Your task to perform on an android device: Go to sound settings Image 0: 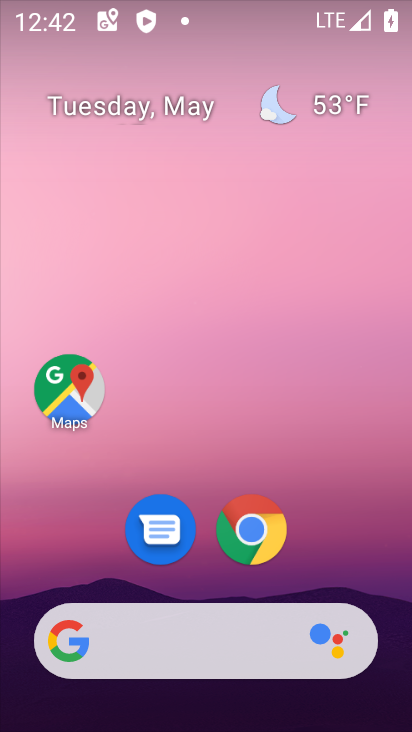
Step 0: drag from (219, 721) to (216, 103)
Your task to perform on an android device: Go to sound settings Image 1: 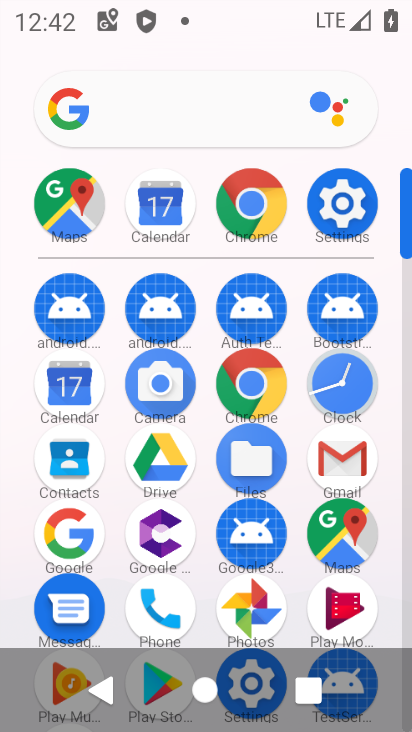
Step 1: click (340, 190)
Your task to perform on an android device: Go to sound settings Image 2: 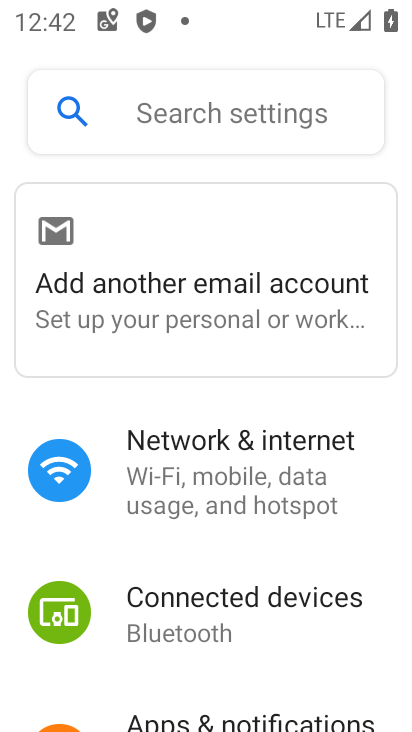
Step 2: drag from (243, 683) to (240, 312)
Your task to perform on an android device: Go to sound settings Image 3: 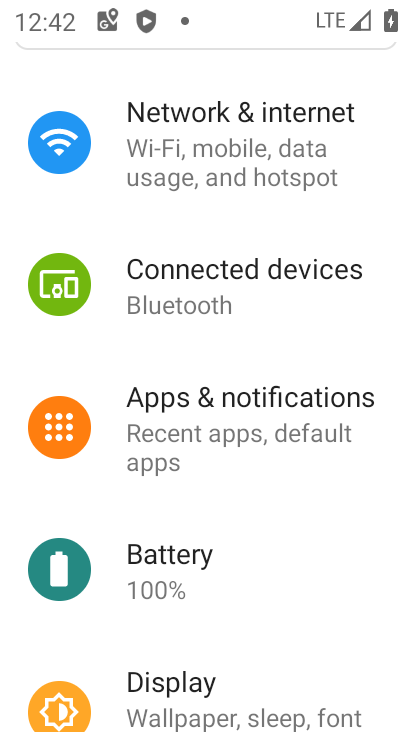
Step 3: drag from (198, 655) to (206, 192)
Your task to perform on an android device: Go to sound settings Image 4: 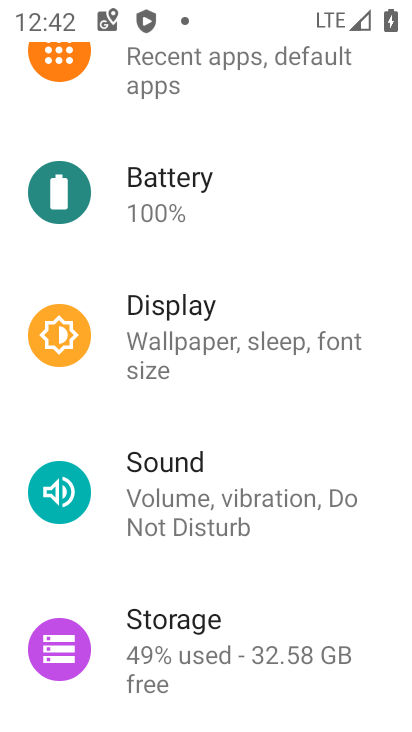
Step 4: drag from (187, 677) to (194, 519)
Your task to perform on an android device: Go to sound settings Image 5: 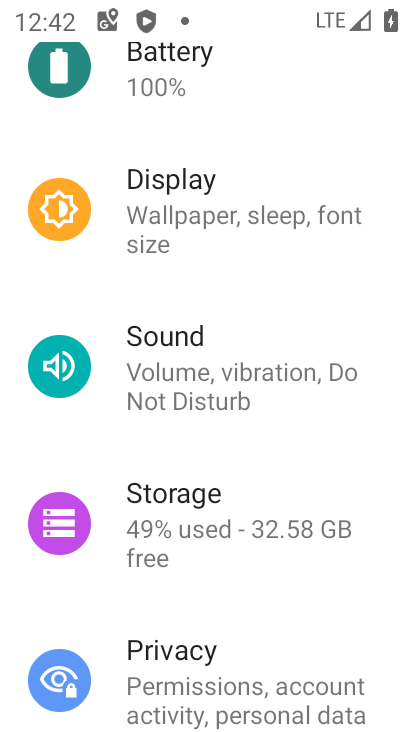
Step 5: click (169, 379)
Your task to perform on an android device: Go to sound settings Image 6: 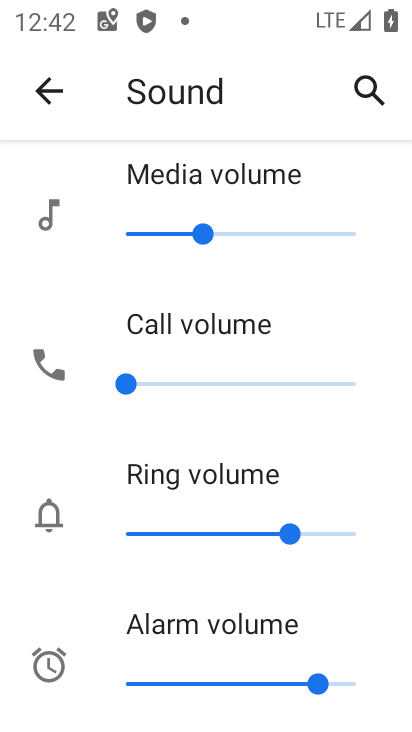
Step 6: task complete